Your task to perform on an android device: Search for vegetarian restaurants on Maps Image 0: 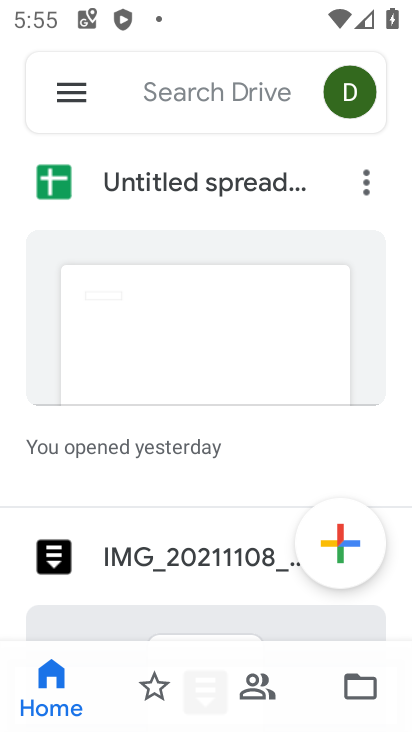
Step 0: press home button
Your task to perform on an android device: Search for vegetarian restaurants on Maps Image 1: 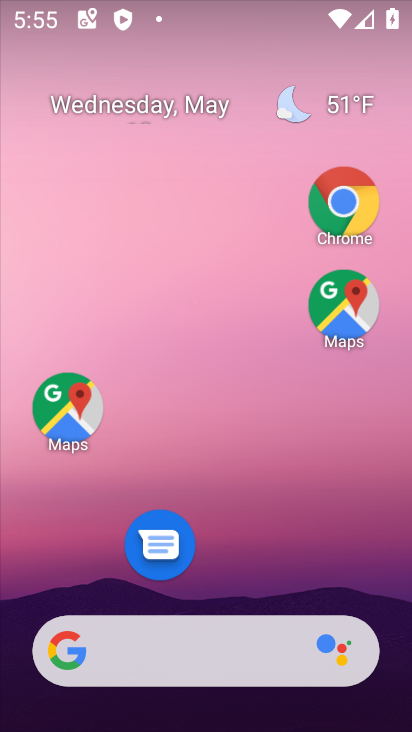
Step 1: click (83, 430)
Your task to perform on an android device: Search for vegetarian restaurants on Maps Image 2: 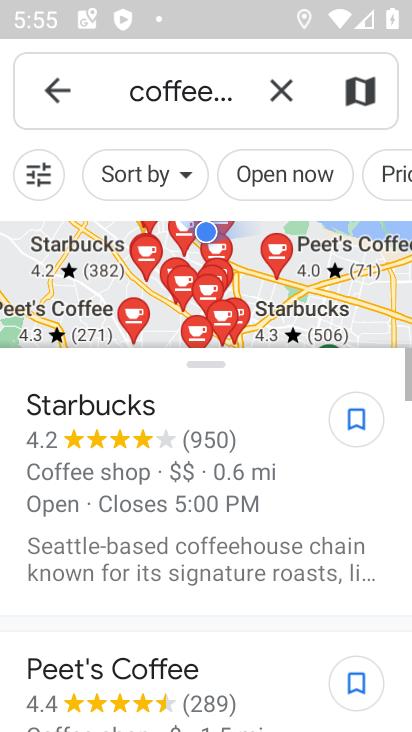
Step 2: click (293, 94)
Your task to perform on an android device: Search for vegetarian restaurants on Maps Image 3: 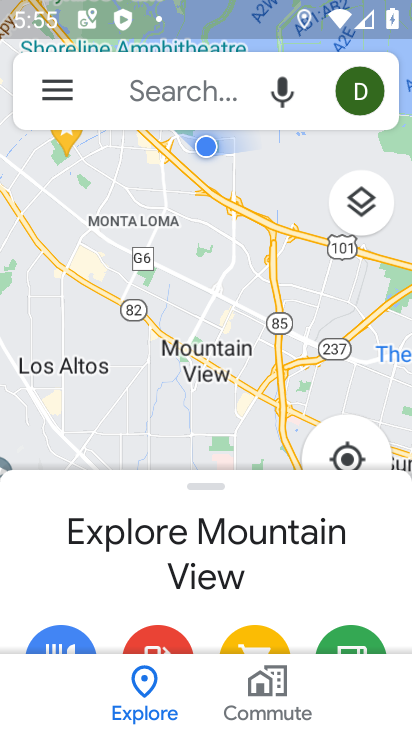
Step 3: click (186, 90)
Your task to perform on an android device: Search for vegetarian restaurants on Maps Image 4: 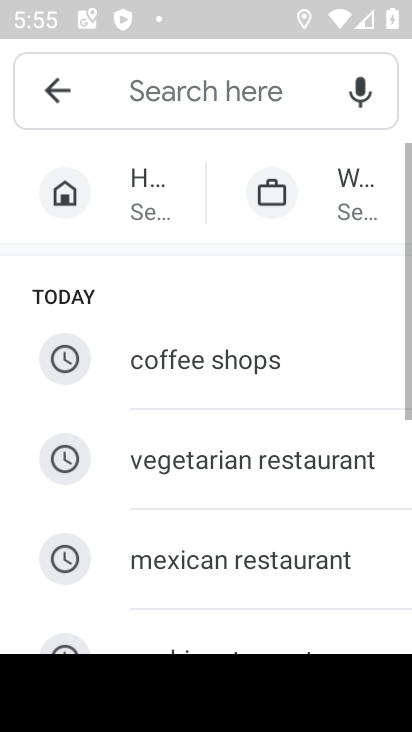
Step 4: click (203, 446)
Your task to perform on an android device: Search for vegetarian restaurants on Maps Image 5: 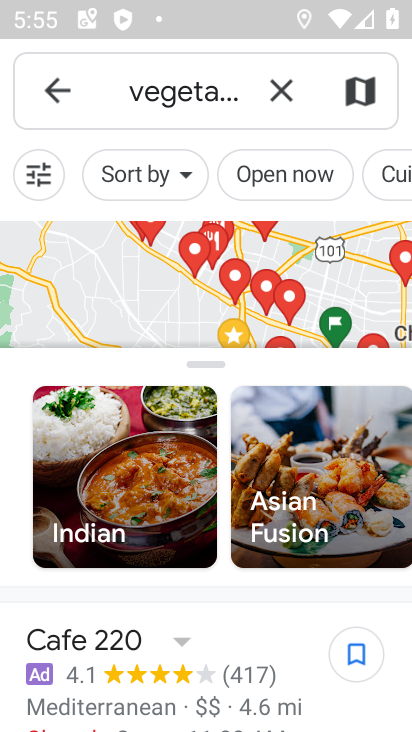
Step 5: task complete